Your task to perform on an android device: Show me productivity apps on the Play Store Image 0: 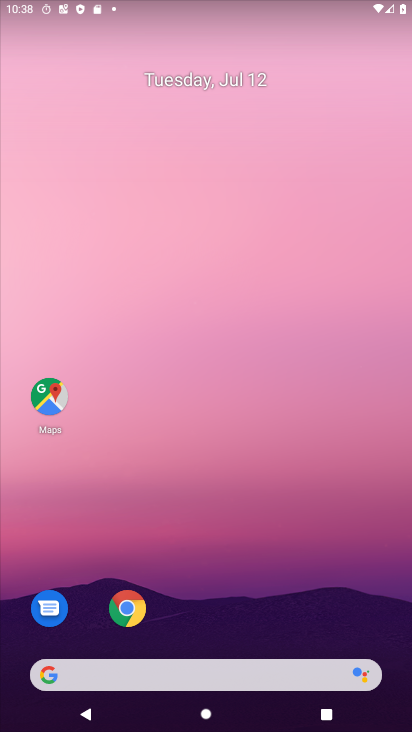
Step 0: drag from (313, 603) to (323, 91)
Your task to perform on an android device: Show me productivity apps on the Play Store Image 1: 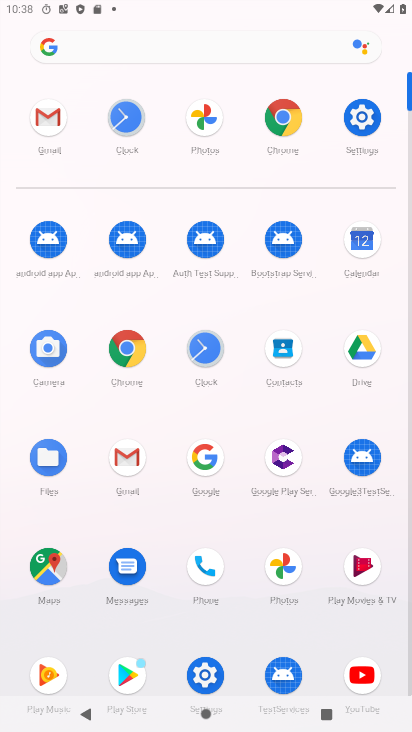
Step 1: click (129, 670)
Your task to perform on an android device: Show me productivity apps on the Play Store Image 2: 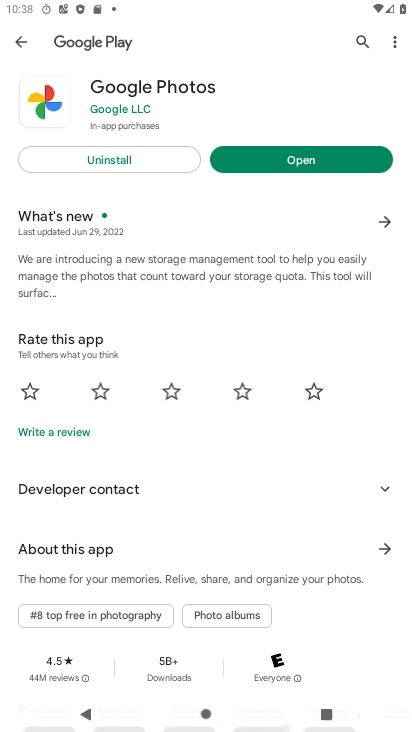
Step 2: click (18, 43)
Your task to perform on an android device: Show me productivity apps on the Play Store Image 3: 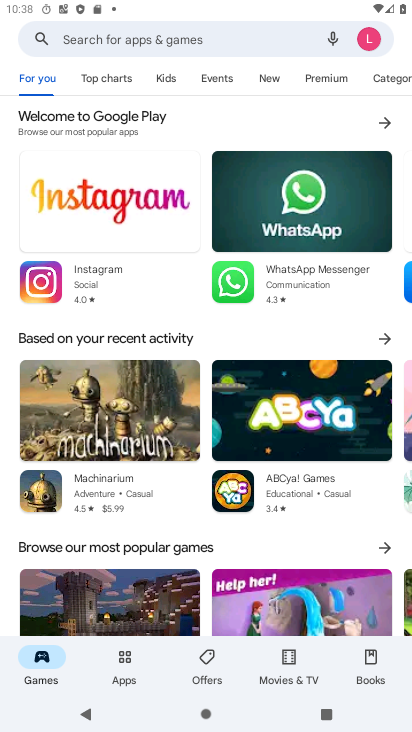
Step 3: click (135, 663)
Your task to perform on an android device: Show me productivity apps on the Play Store Image 4: 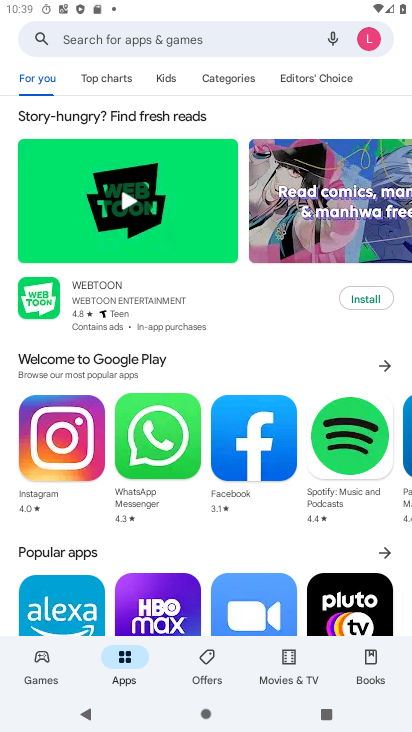
Step 4: click (215, 70)
Your task to perform on an android device: Show me productivity apps on the Play Store Image 5: 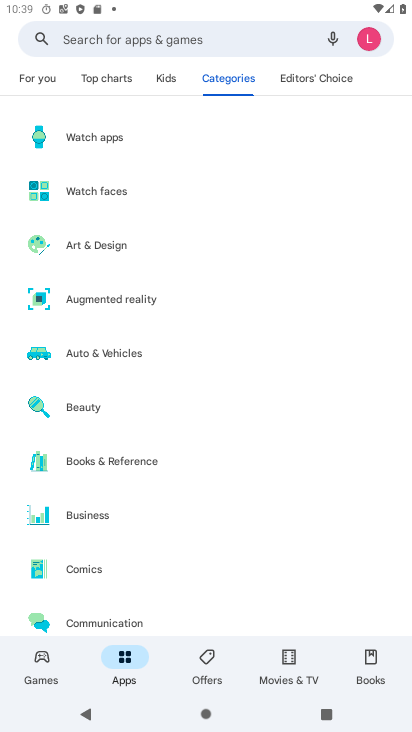
Step 5: drag from (164, 539) to (177, 90)
Your task to perform on an android device: Show me productivity apps on the Play Store Image 6: 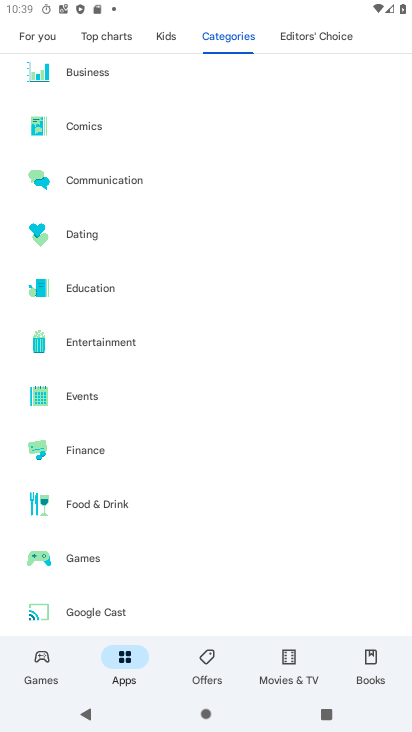
Step 6: drag from (220, 323) to (247, 221)
Your task to perform on an android device: Show me productivity apps on the Play Store Image 7: 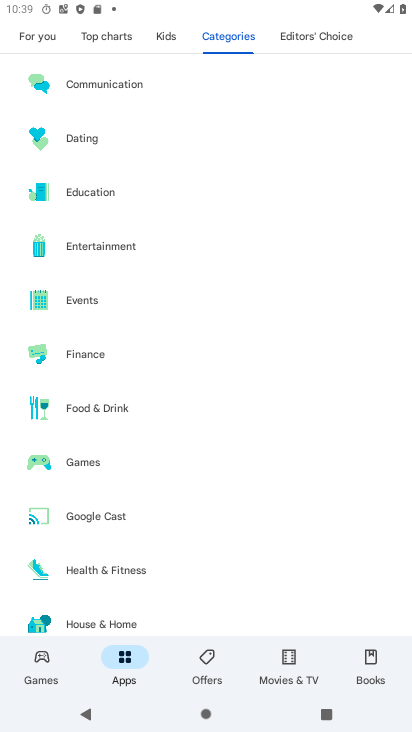
Step 7: drag from (134, 561) to (173, 144)
Your task to perform on an android device: Show me productivity apps on the Play Store Image 8: 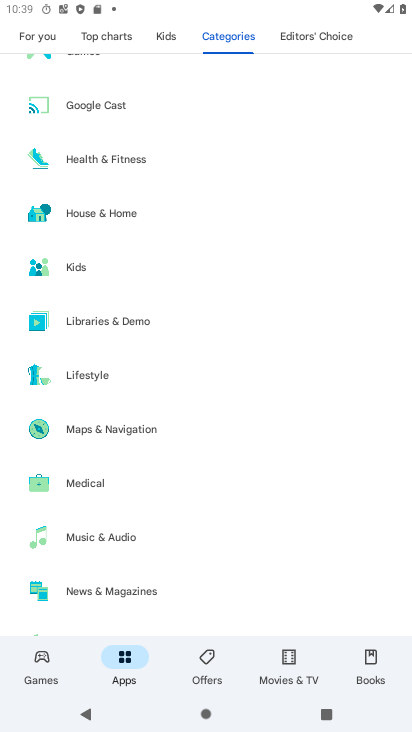
Step 8: drag from (178, 504) to (197, 88)
Your task to perform on an android device: Show me productivity apps on the Play Store Image 9: 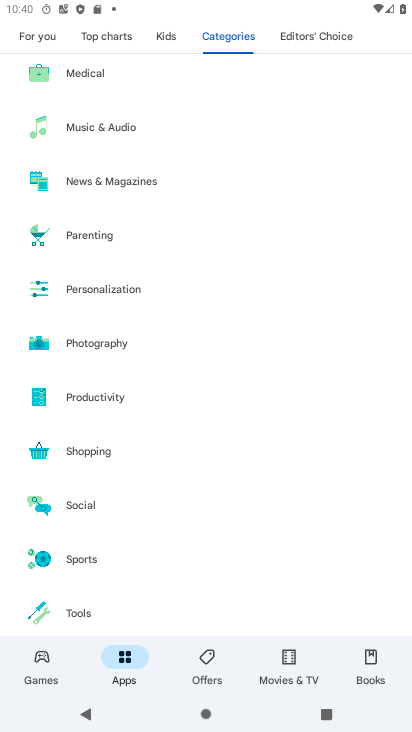
Step 9: click (91, 394)
Your task to perform on an android device: Show me productivity apps on the Play Store Image 10: 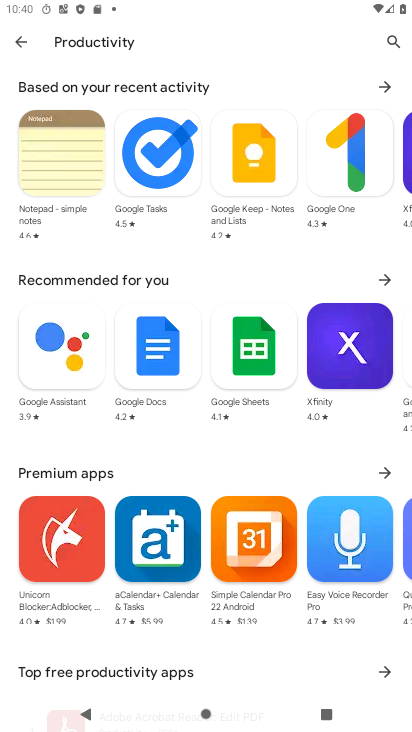
Step 10: task complete